Your task to perform on an android device: toggle translation in the chrome app Image 0: 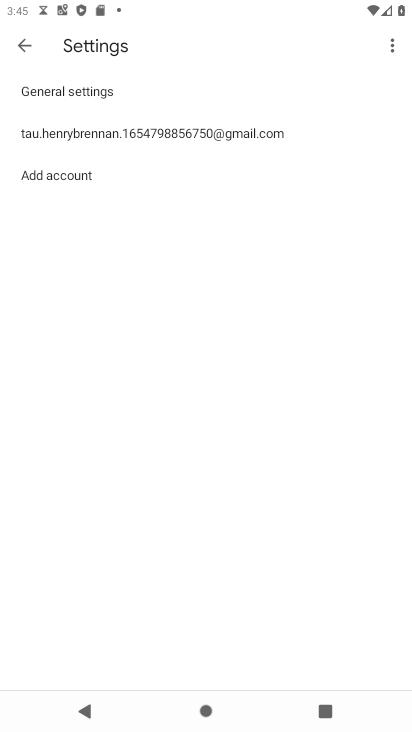
Step 0: press home button
Your task to perform on an android device: toggle translation in the chrome app Image 1: 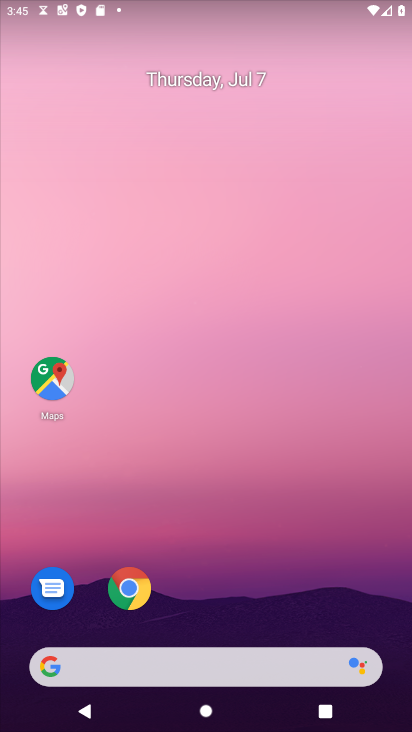
Step 1: click (130, 586)
Your task to perform on an android device: toggle translation in the chrome app Image 2: 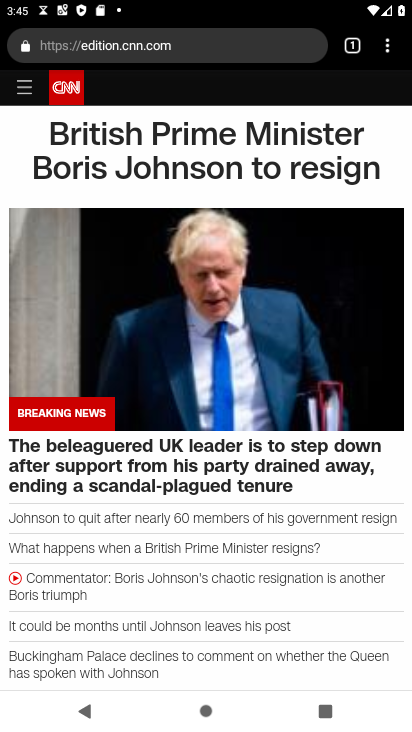
Step 2: click (389, 49)
Your task to perform on an android device: toggle translation in the chrome app Image 3: 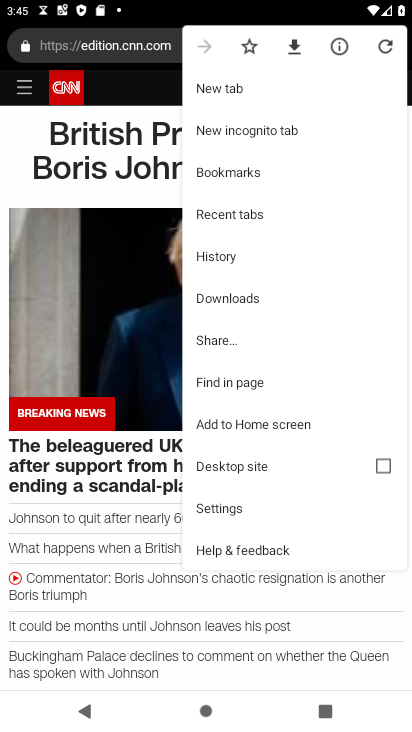
Step 3: click (224, 509)
Your task to perform on an android device: toggle translation in the chrome app Image 4: 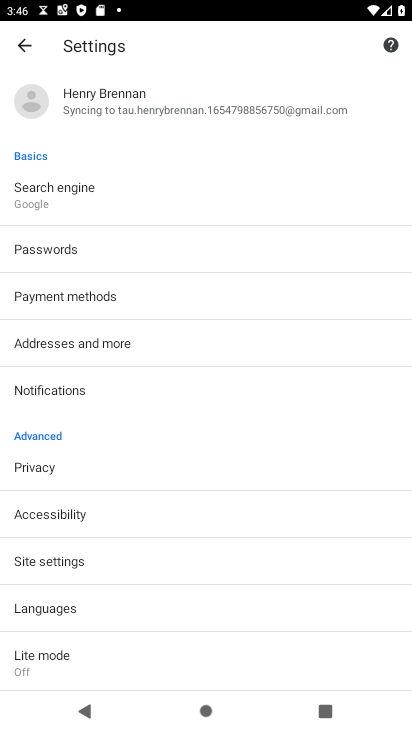
Step 4: click (62, 601)
Your task to perform on an android device: toggle translation in the chrome app Image 5: 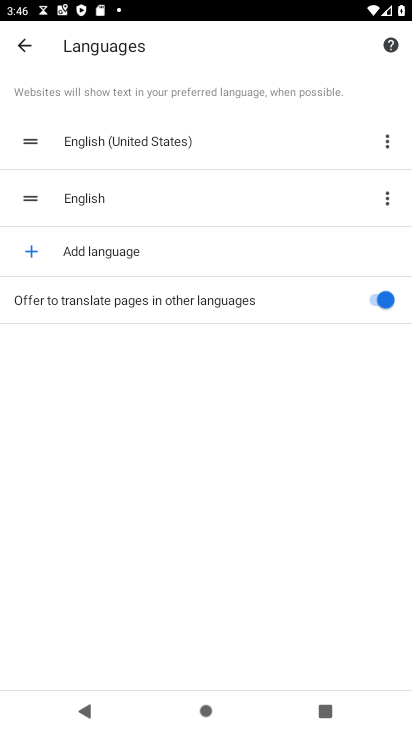
Step 5: click (390, 292)
Your task to perform on an android device: toggle translation in the chrome app Image 6: 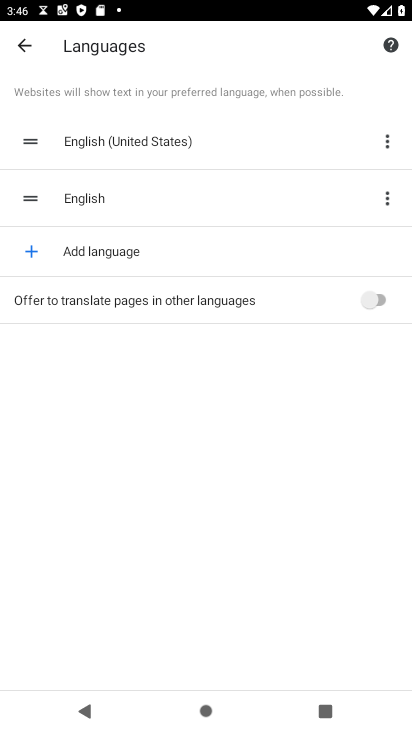
Step 6: task complete